Your task to perform on an android device: Search for "bose quietcomfort 35" on bestbuy, select the first entry, and add it to the cart. Image 0: 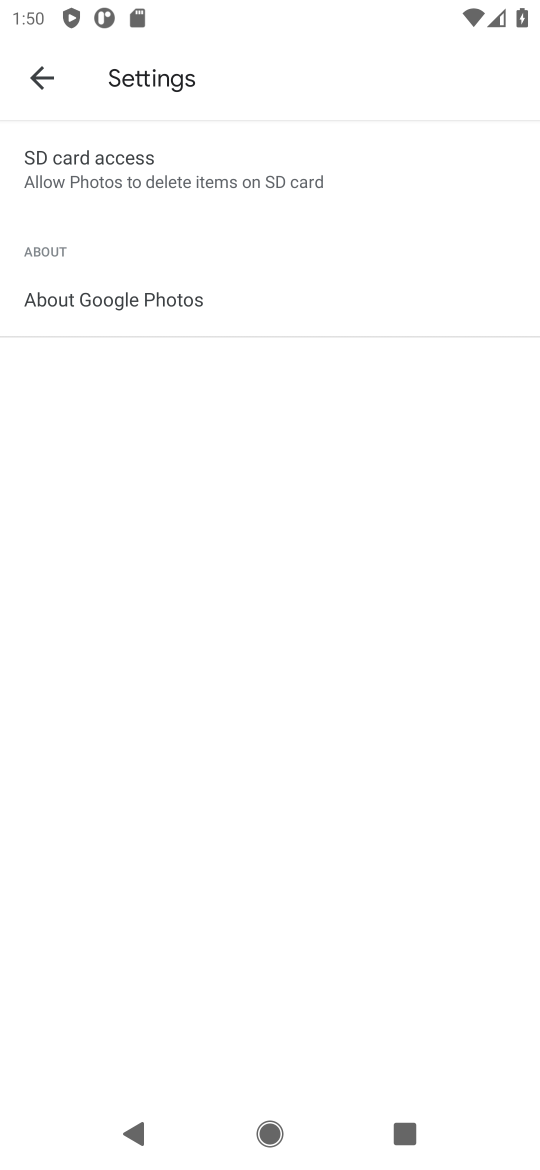
Step 0: press home button
Your task to perform on an android device: Search for "bose quietcomfort 35" on bestbuy, select the first entry, and add it to the cart. Image 1: 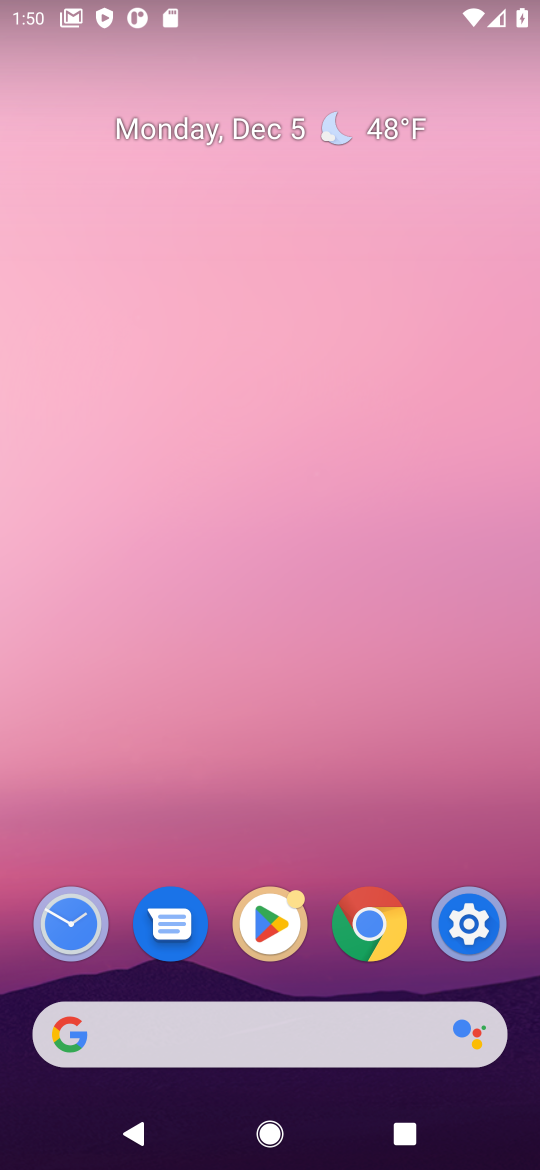
Step 1: click (248, 1035)
Your task to perform on an android device: Search for "bose quietcomfort 35" on bestbuy, select the first entry, and add it to the cart. Image 2: 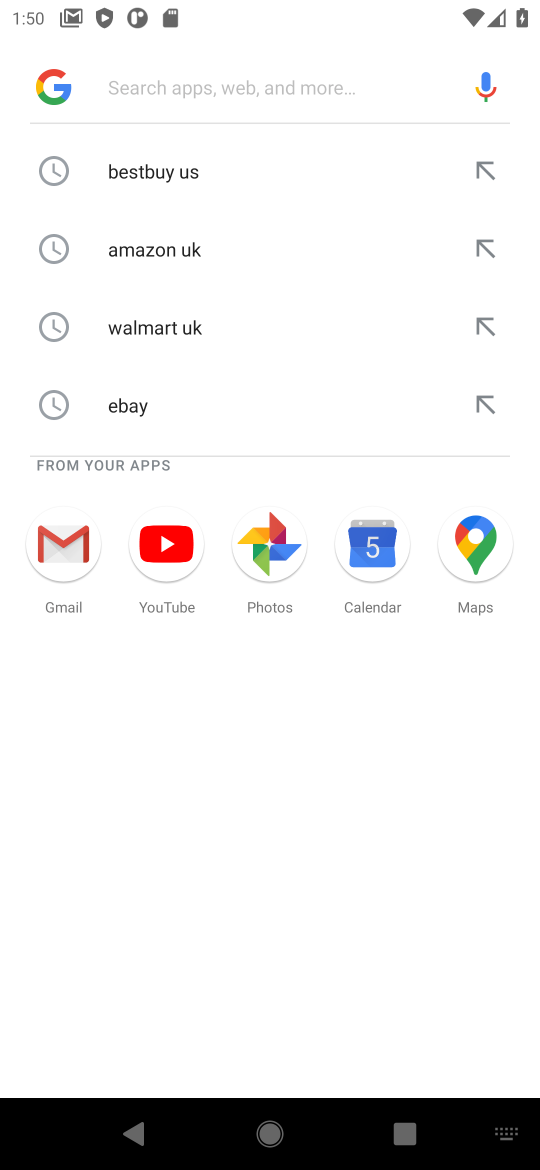
Step 2: click (175, 178)
Your task to perform on an android device: Search for "bose quietcomfort 35" on bestbuy, select the first entry, and add it to the cart. Image 3: 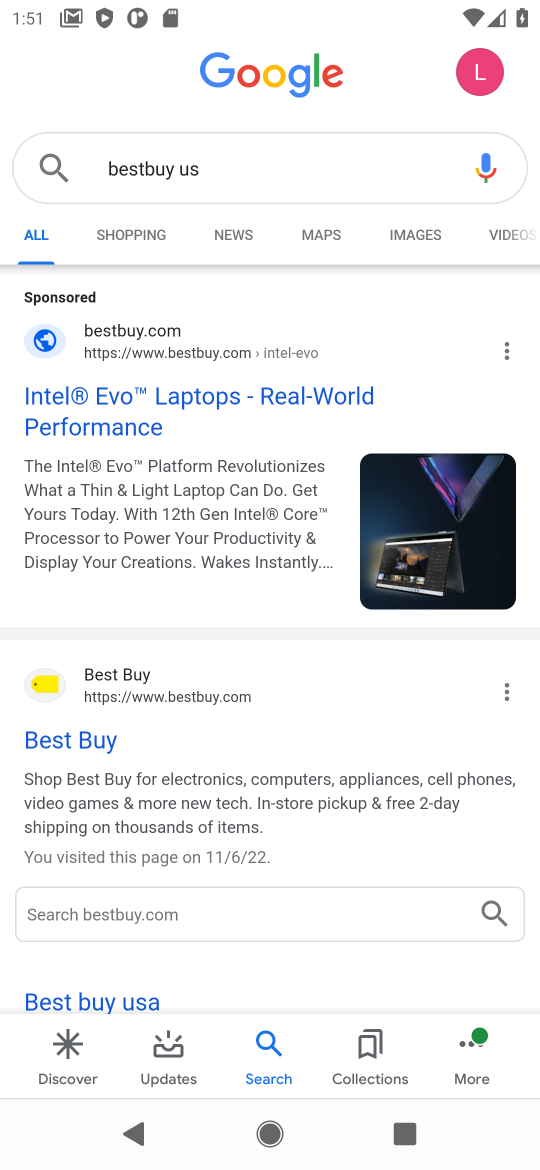
Step 3: click (100, 441)
Your task to perform on an android device: Search for "bose quietcomfort 35" on bestbuy, select the first entry, and add it to the cart. Image 4: 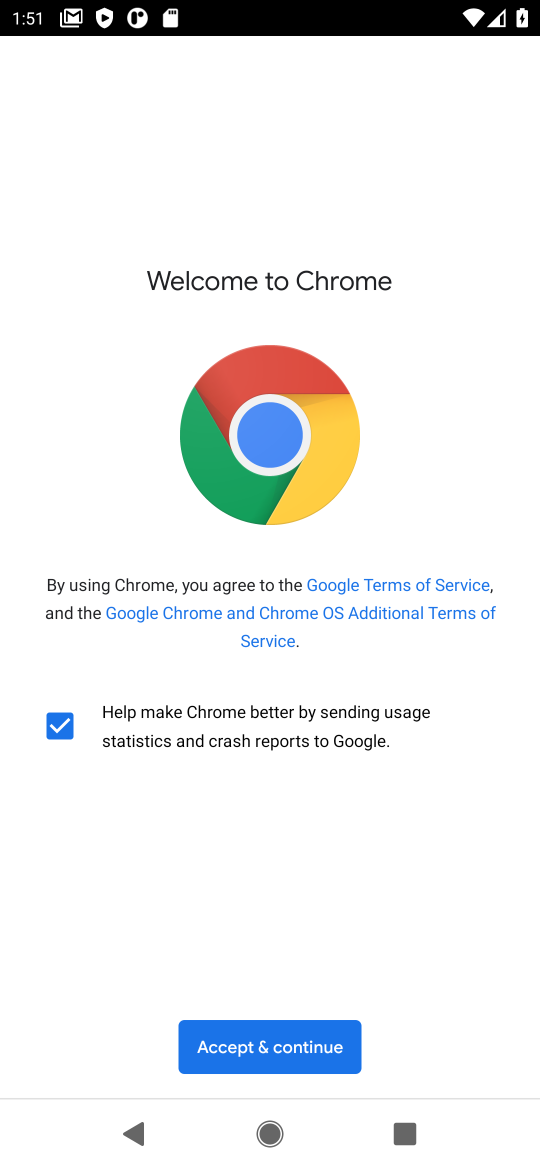
Step 4: click (213, 1038)
Your task to perform on an android device: Search for "bose quietcomfort 35" on bestbuy, select the first entry, and add it to the cart. Image 5: 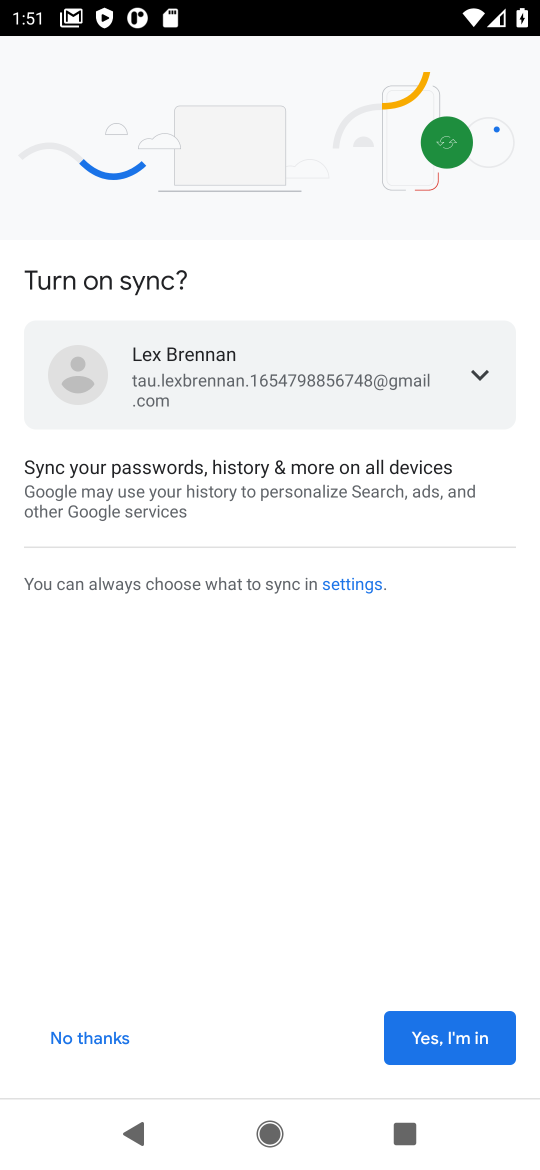
Step 5: click (415, 1049)
Your task to perform on an android device: Search for "bose quietcomfort 35" on bestbuy, select the first entry, and add it to the cart. Image 6: 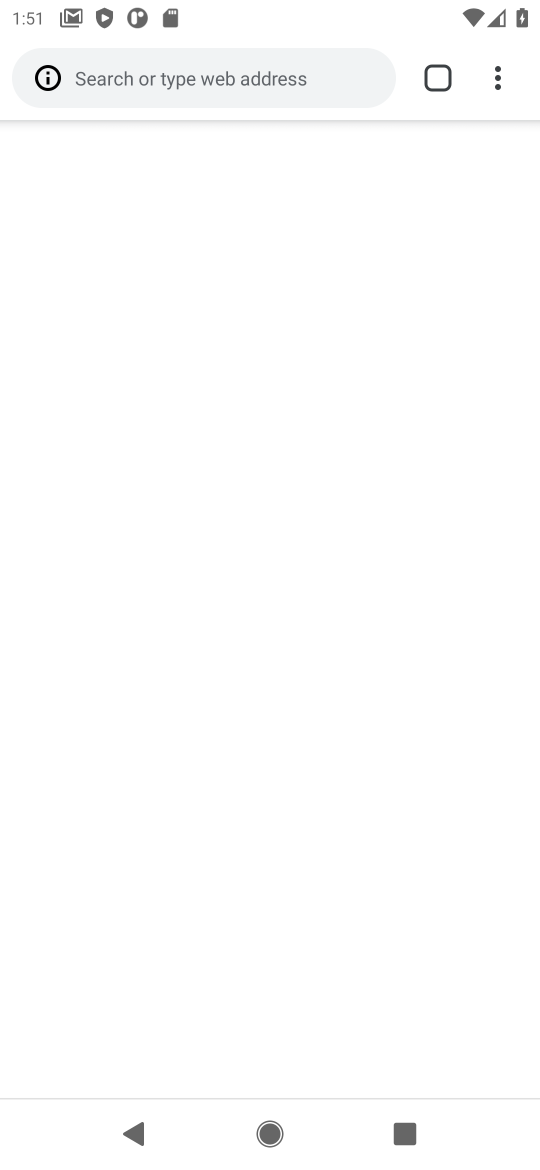
Step 6: task complete